Your task to perform on an android device: see creations saved in the google photos Image 0: 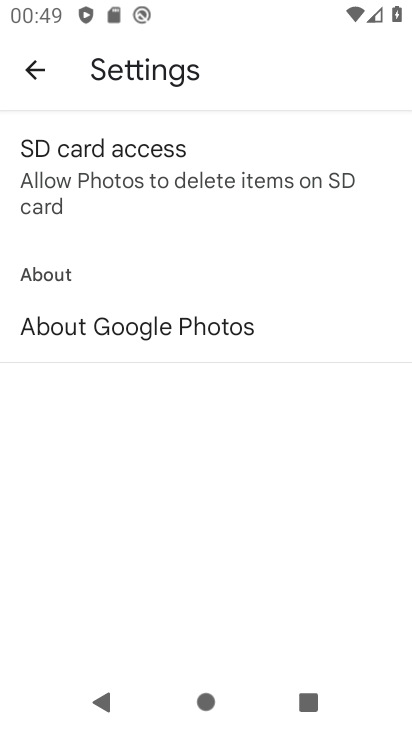
Step 0: press back button
Your task to perform on an android device: see creations saved in the google photos Image 1: 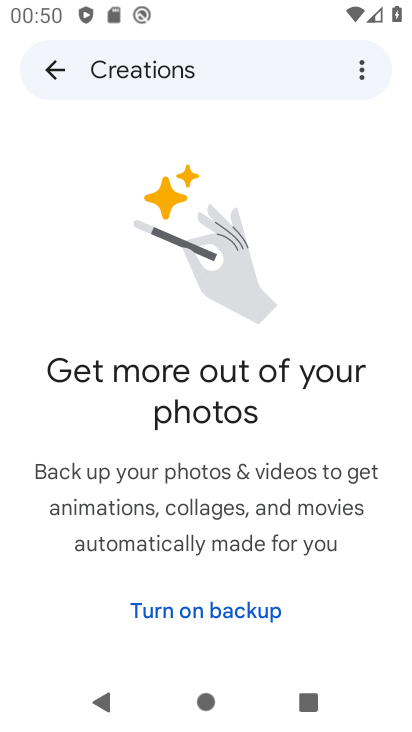
Step 1: task complete